Your task to perform on an android device: View the shopping cart on costco. Search for logitech g933 on costco, select the first entry, and add it to the cart. Image 0: 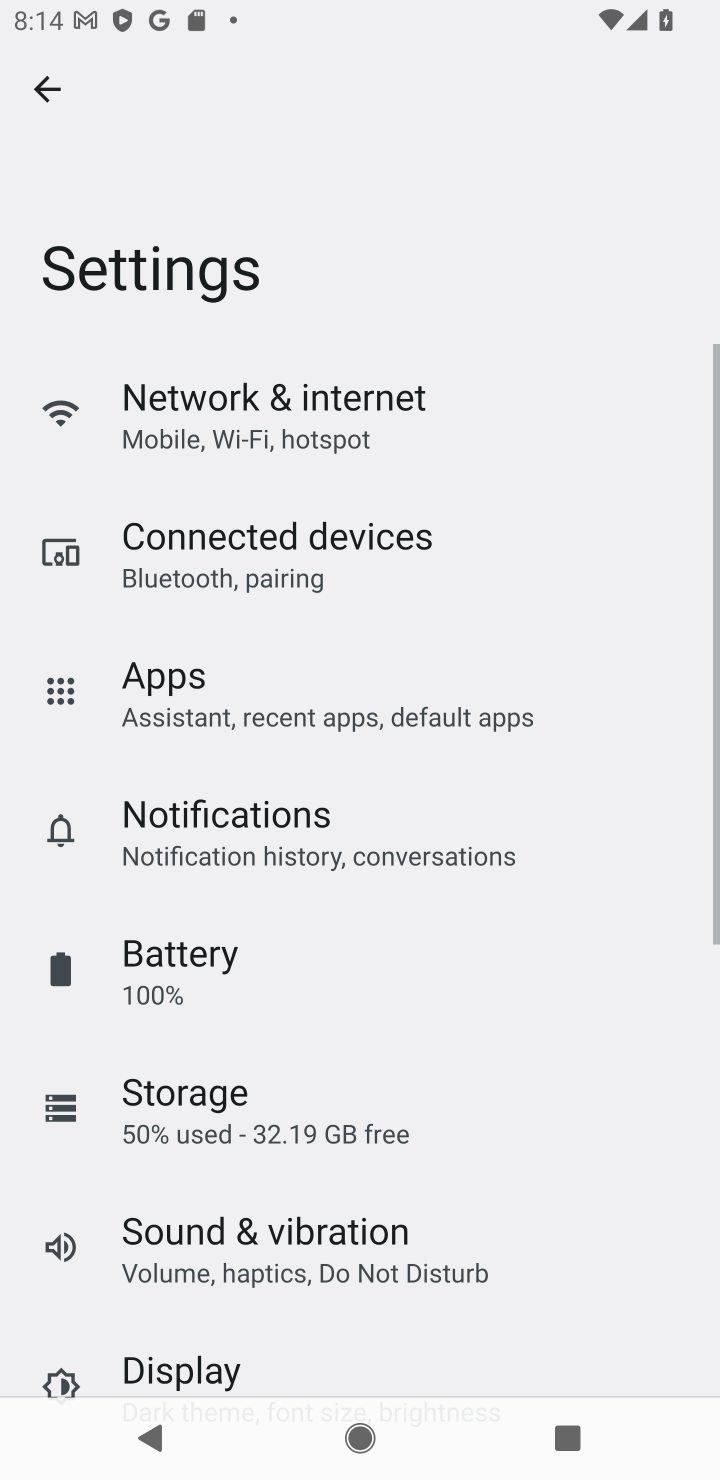
Step 0: press home button
Your task to perform on an android device: View the shopping cart on costco. Search for logitech g933 on costco, select the first entry, and add it to the cart. Image 1: 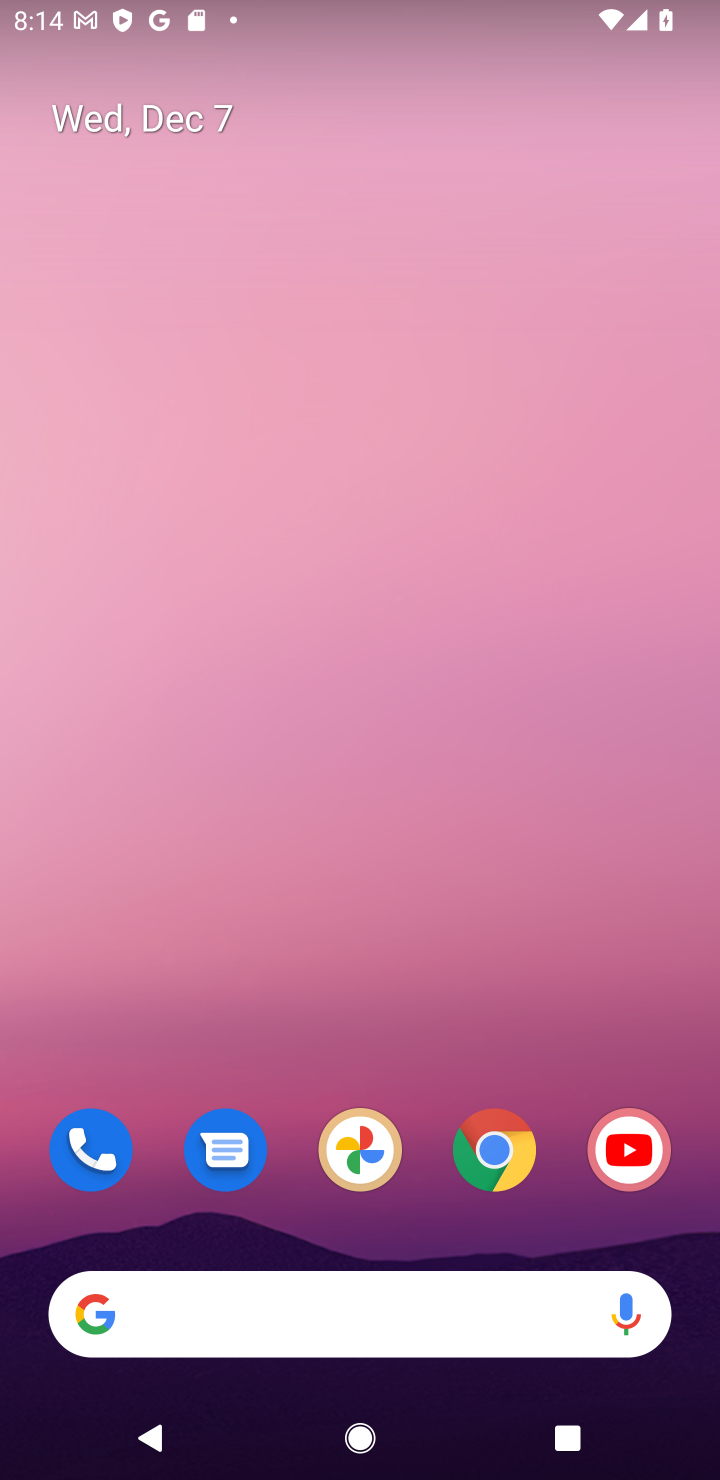
Step 1: click (521, 1141)
Your task to perform on an android device: View the shopping cart on costco. Search for logitech g933 on costco, select the first entry, and add it to the cart. Image 2: 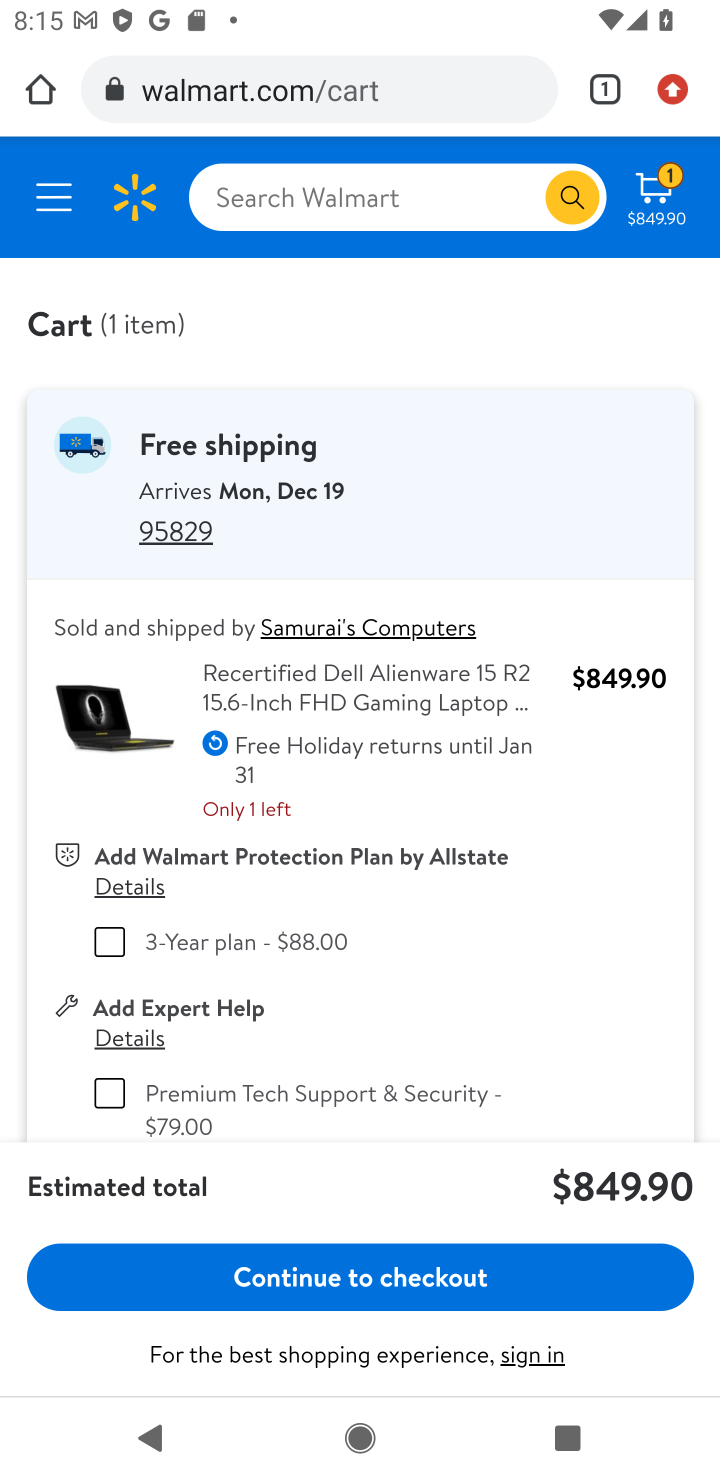
Step 2: click (408, 79)
Your task to perform on an android device: View the shopping cart on costco. Search for logitech g933 on costco, select the first entry, and add it to the cart. Image 3: 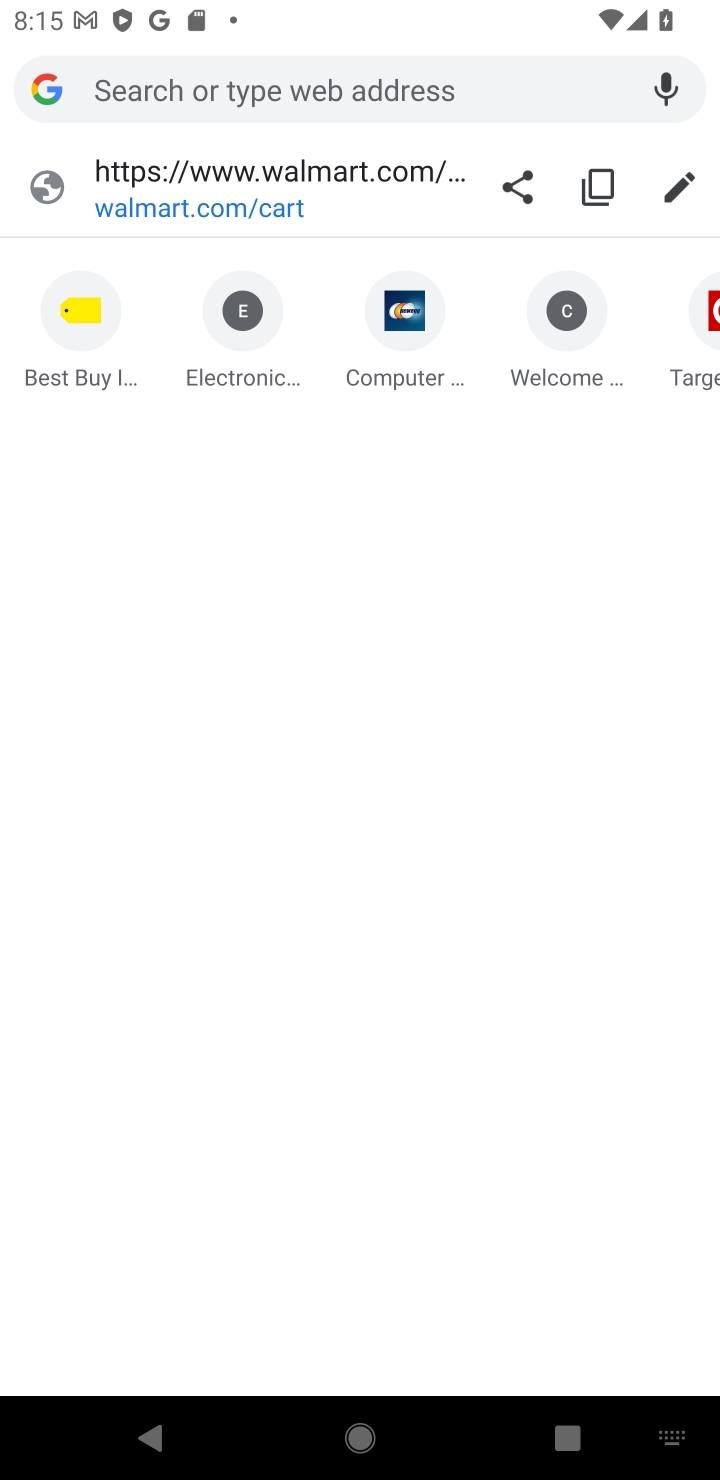
Step 3: type "costco"
Your task to perform on an android device: View the shopping cart on costco. Search for logitech g933 on costco, select the first entry, and add it to the cart. Image 4: 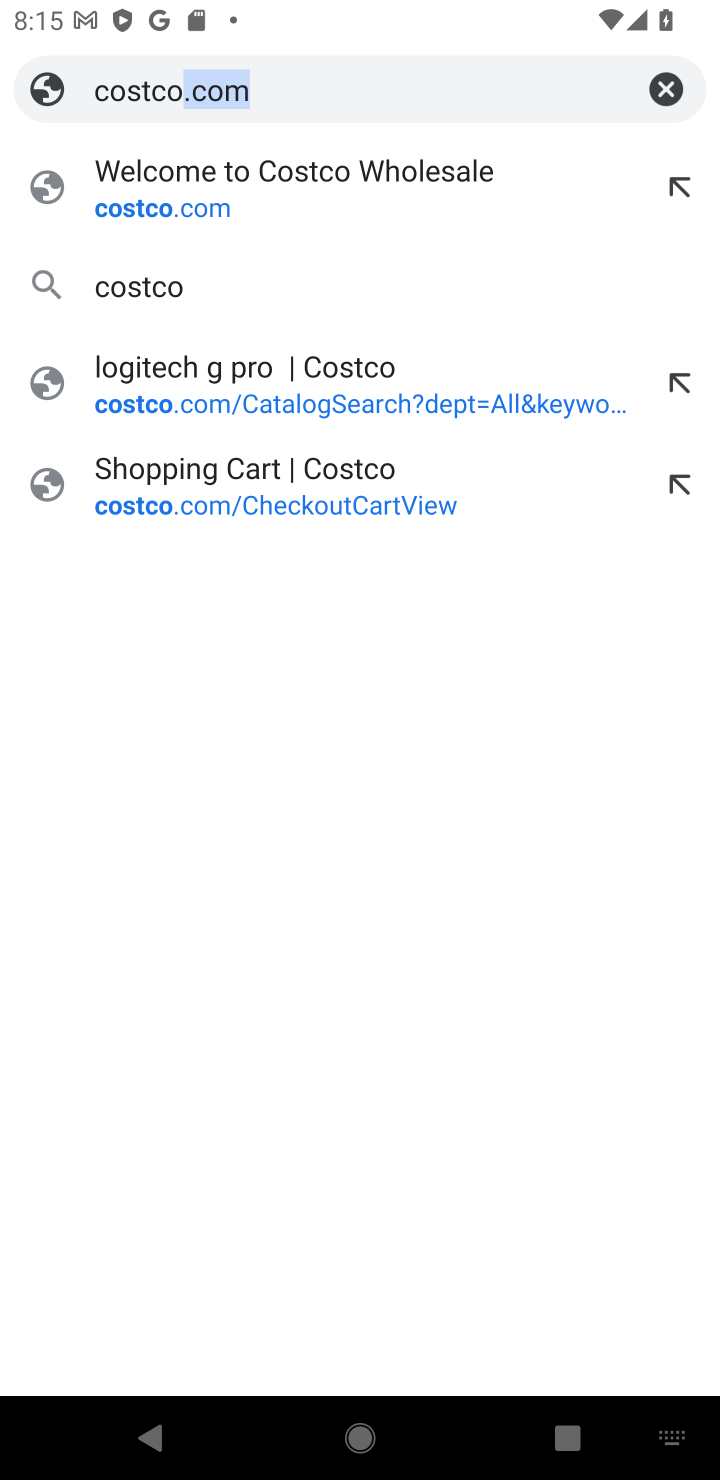
Step 4: click (306, 83)
Your task to perform on an android device: View the shopping cart on costco. Search for logitech g933 on costco, select the first entry, and add it to the cart. Image 5: 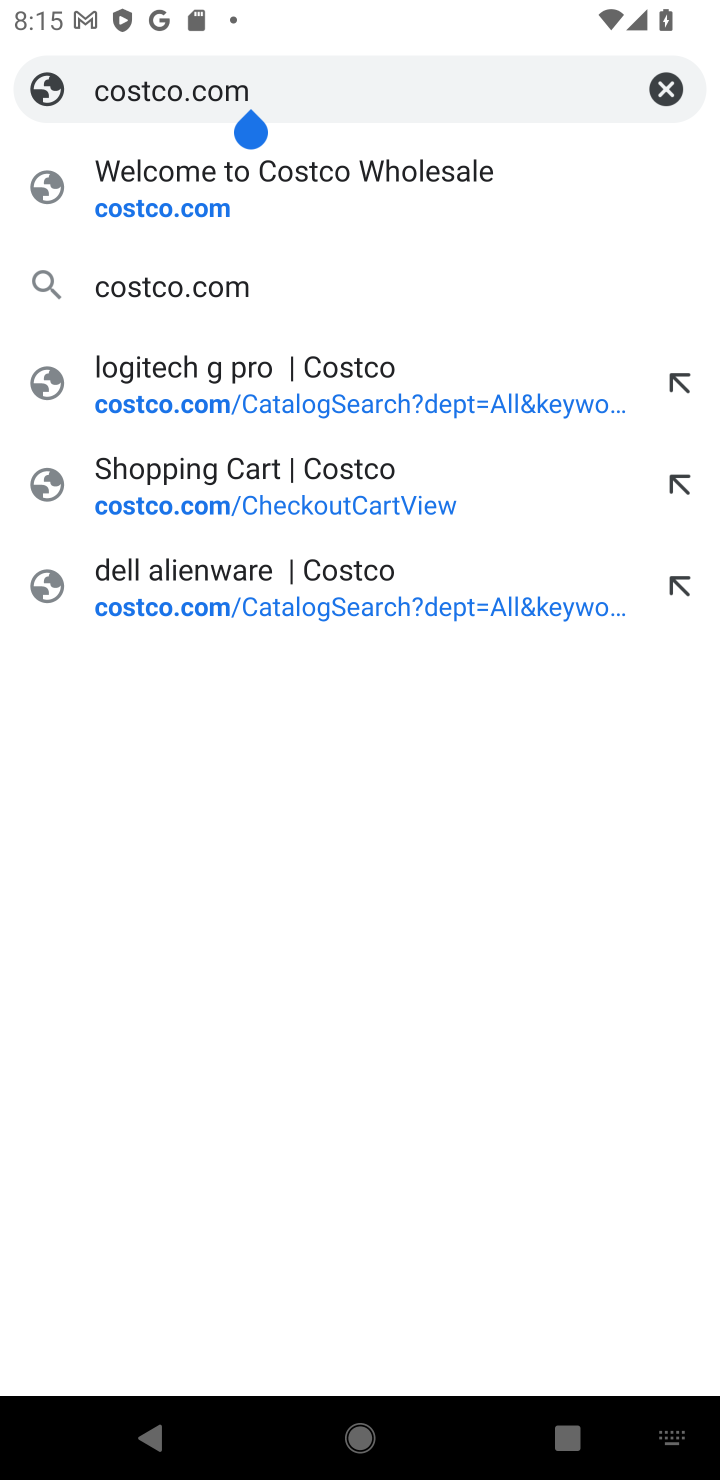
Step 5: click (221, 288)
Your task to perform on an android device: View the shopping cart on costco. Search for logitech g933 on costco, select the first entry, and add it to the cart. Image 6: 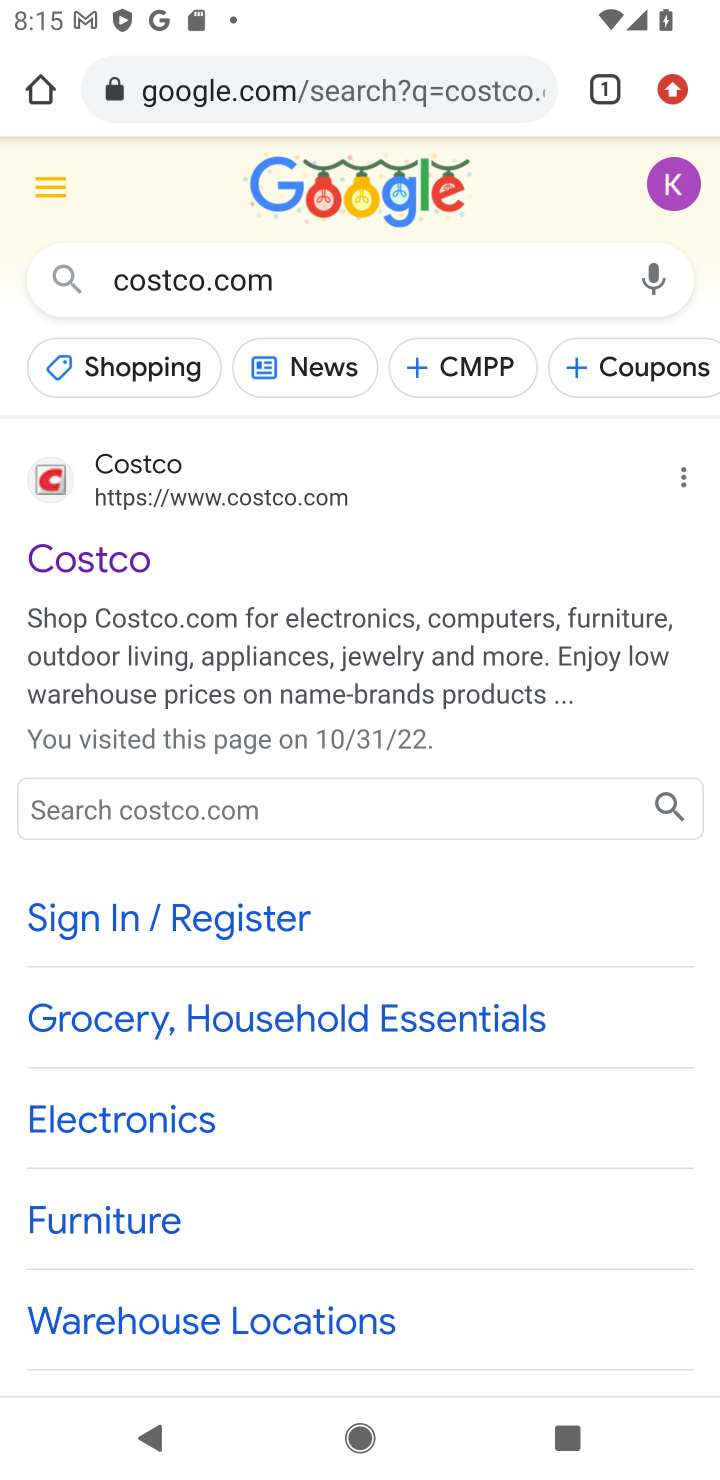
Step 6: click (290, 495)
Your task to perform on an android device: View the shopping cart on costco. Search for logitech g933 on costco, select the first entry, and add it to the cart. Image 7: 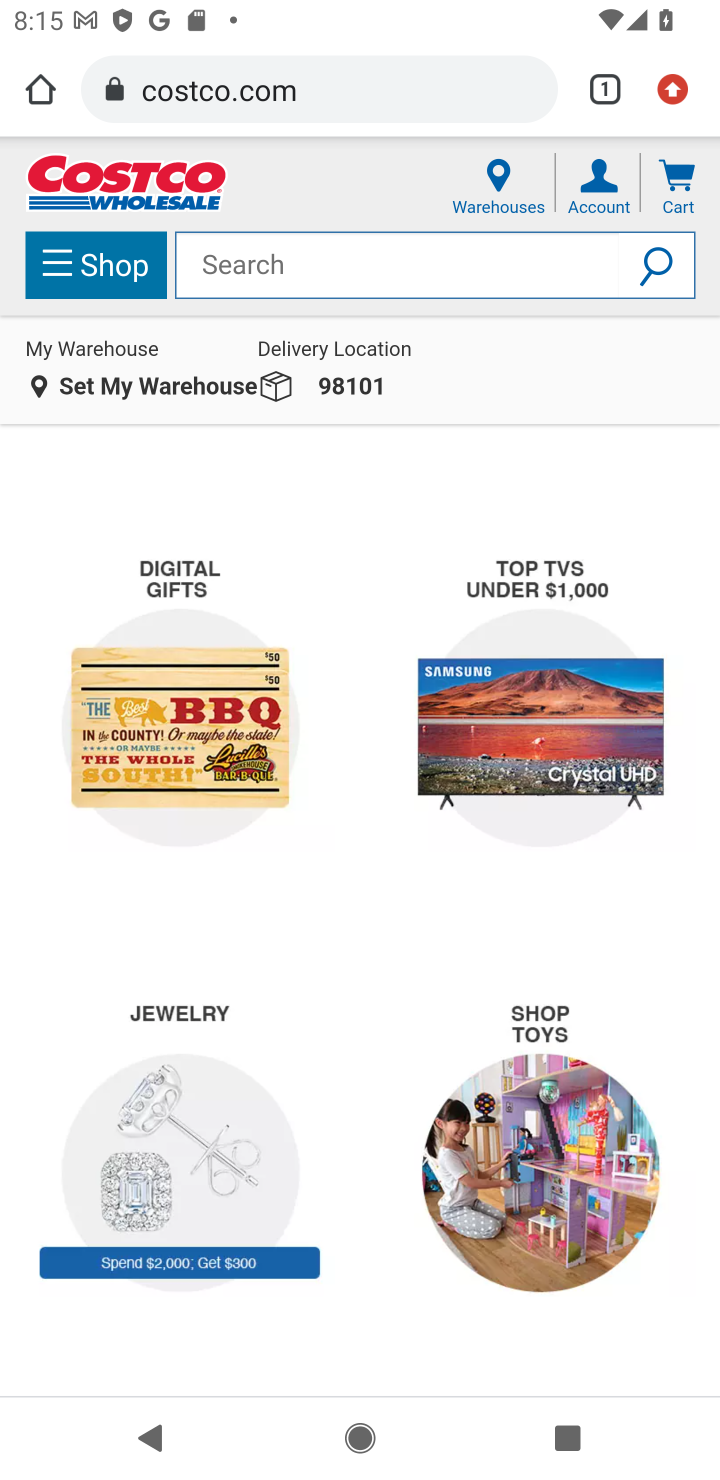
Step 7: click (357, 277)
Your task to perform on an android device: View the shopping cart on costco. Search for logitech g933 on costco, select the first entry, and add it to the cart. Image 8: 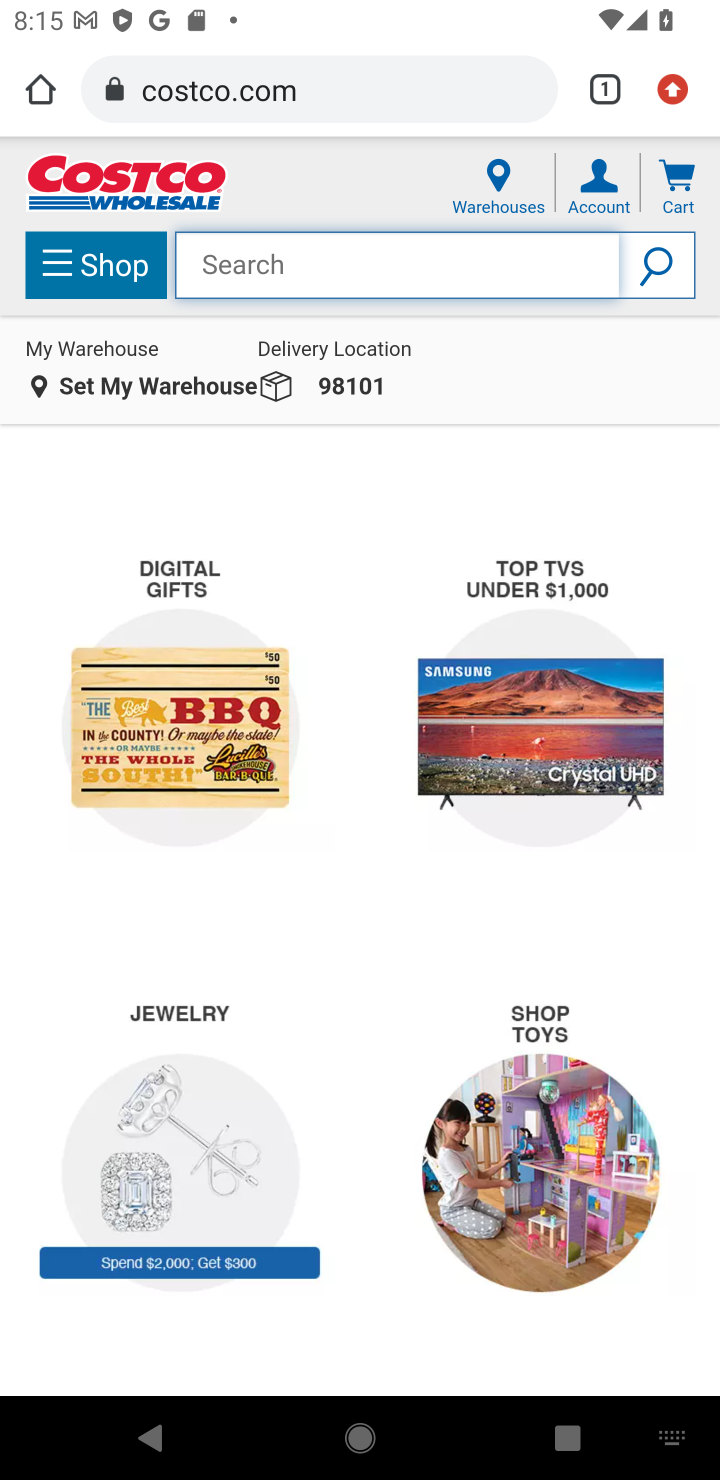
Step 8: type "logitech g933"
Your task to perform on an android device: View the shopping cart on costco. Search for logitech g933 on costco, select the first entry, and add it to the cart. Image 9: 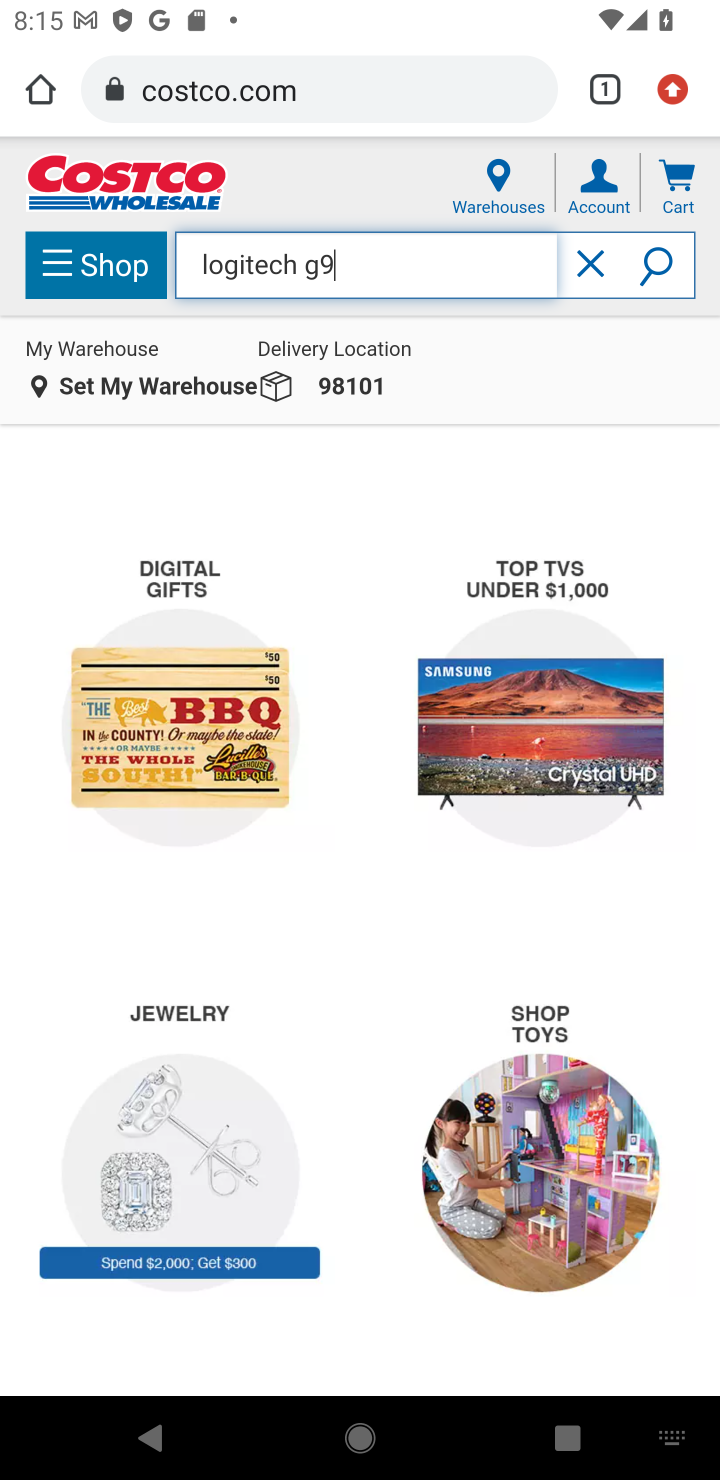
Step 9: press enter
Your task to perform on an android device: View the shopping cart on costco. Search for logitech g933 on costco, select the first entry, and add it to the cart. Image 10: 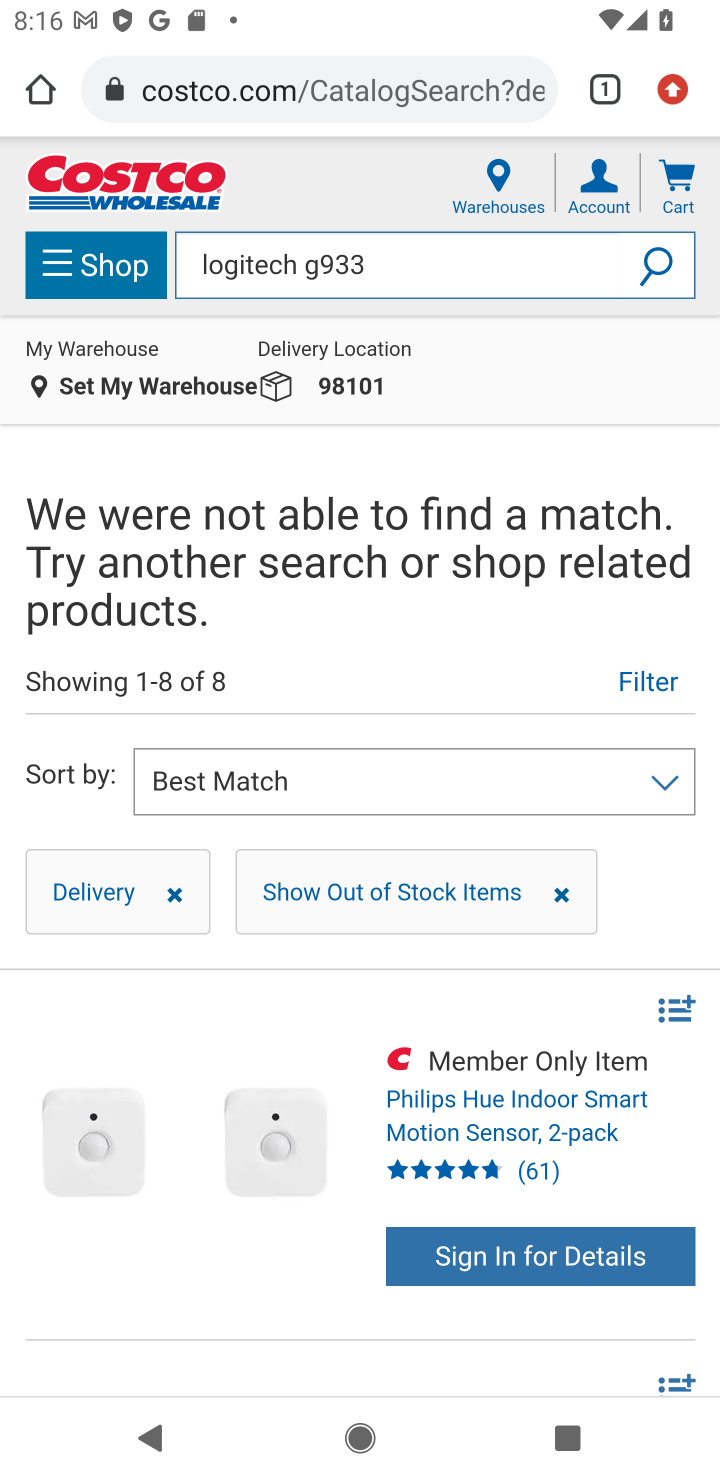
Step 10: click (647, 252)
Your task to perform on an android device: View the shopping cart on costco. Search for logitech g933 on costco, select the first entry, and add it to the cart. Image 11: 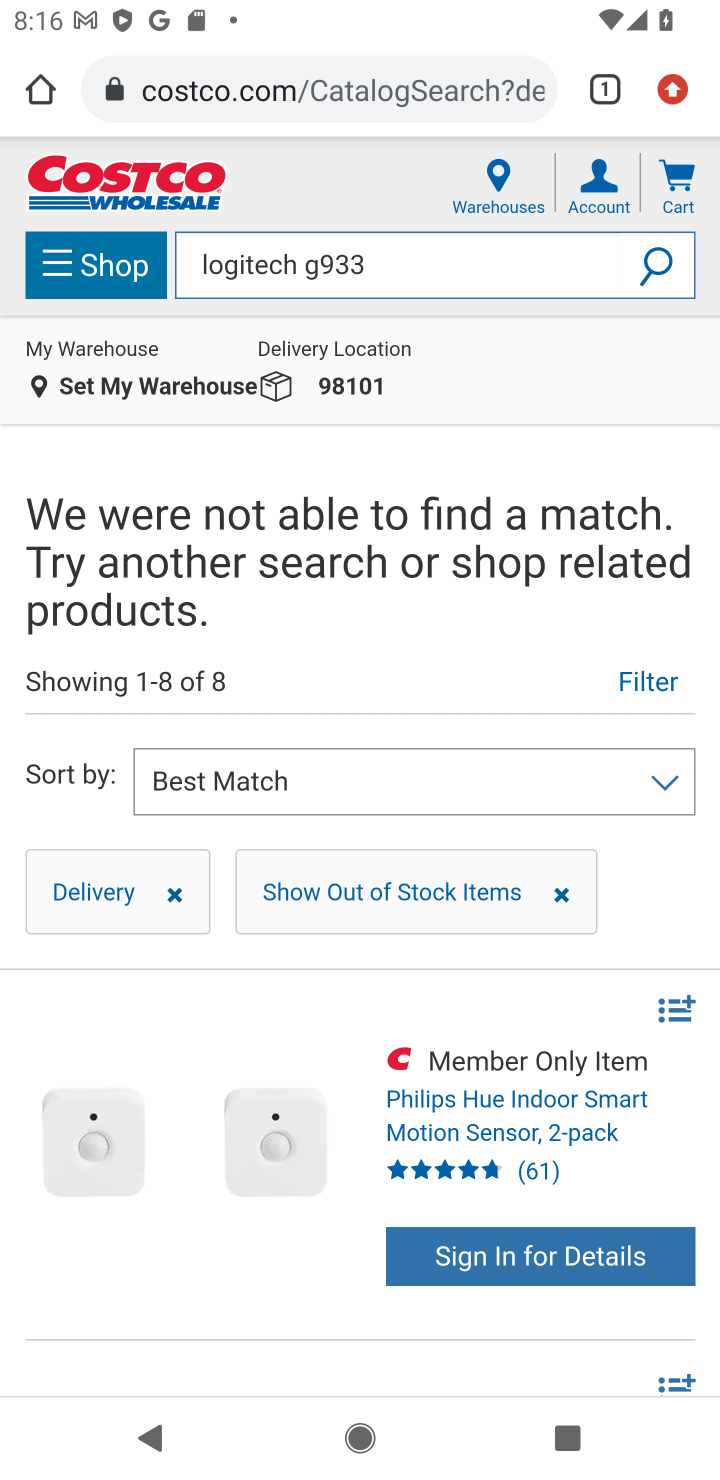
Step 11: task complete